Your task to perform on an android device: Open the Play Movies app and select the watchlist tab. Image 0: 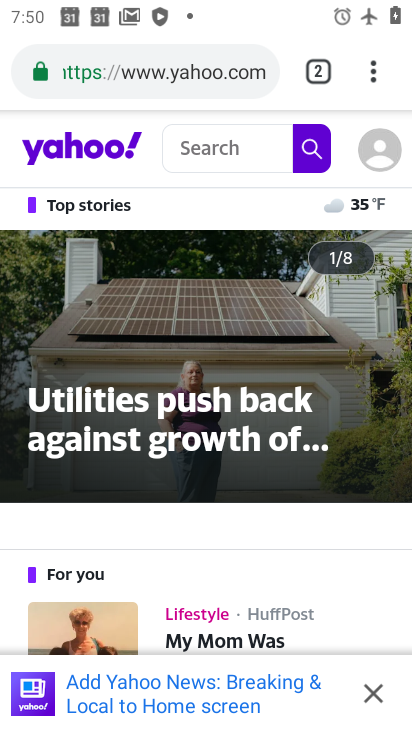
Step 0: press home button
Your task to perform on an android device: Open the Play Movies app and select the watchlist tab. Image 1: 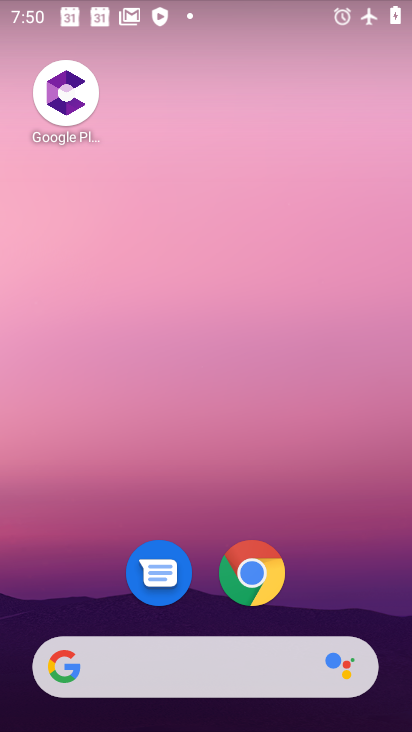
Step 1: drag from (320, 517) to (111, 19)
Your task to perform on an android device: Open the Play Movies app and select the watchlist tab. Image 2: 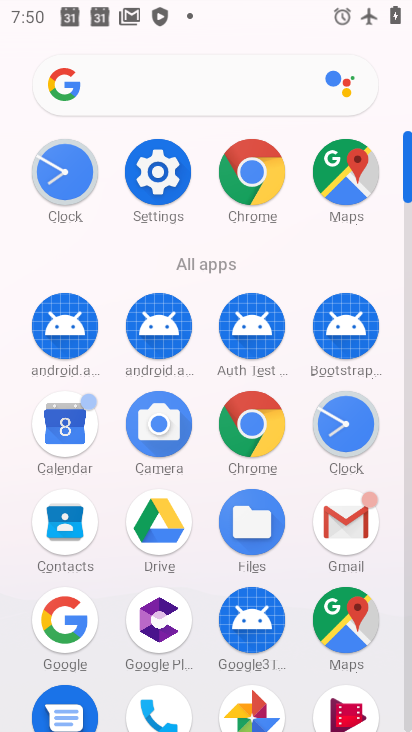
Step 2: drag from (304, 605) to (240, 212)
Your task to perform on an android device: Open the Play Movies app and select the watchlist tab. Image 3: 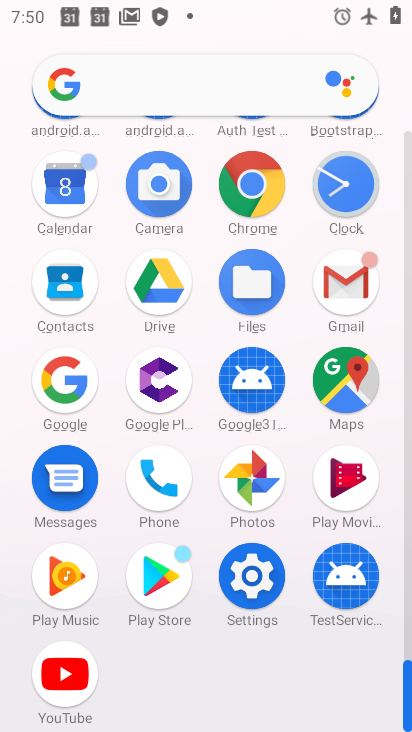
Step 3: drag from (313, 496) to (321, 145)
Your task to perform on an android device: Open the Play Movies app and select the watchlist tab. Image 4: 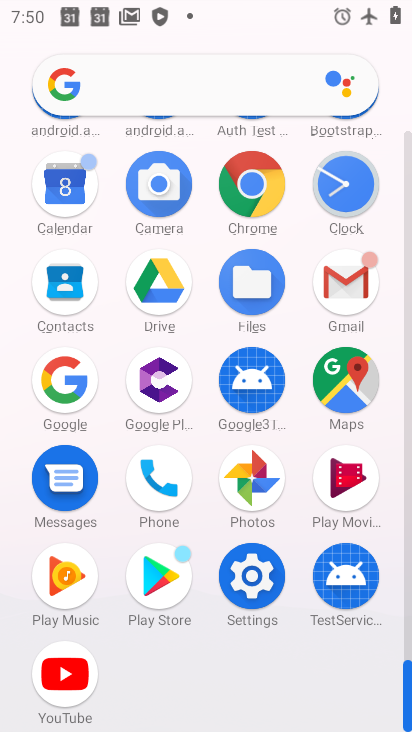
Step 4: click (59, 675)
Your task to perform on an android device: Open the Play Movies app and select the watchlist tab. Image 5: 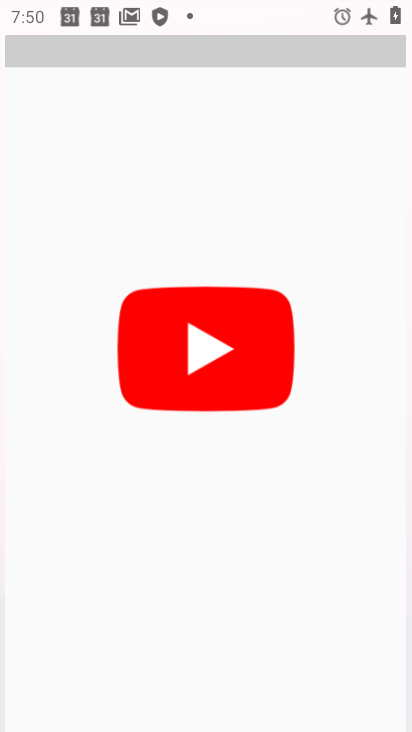
Step 5: click (59, 675)
Your task to perform on an android device: Open the Play Movies app and select the watchlist tab. Image 6: 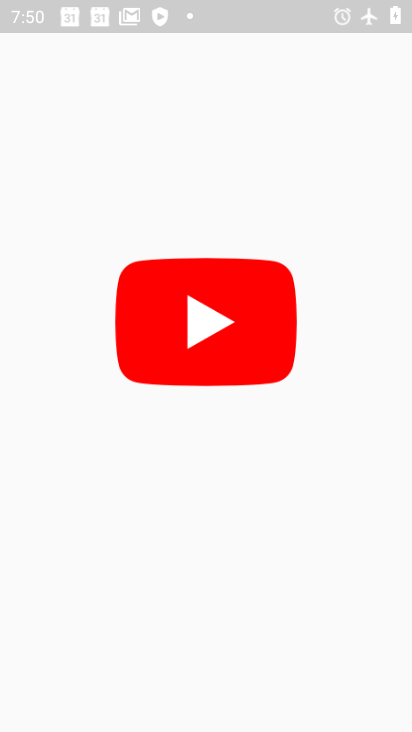
Step 6: click (59, 675)
Your task to perform on an android device: Open the Play Movies app and select the watchlist tab. Image 7: 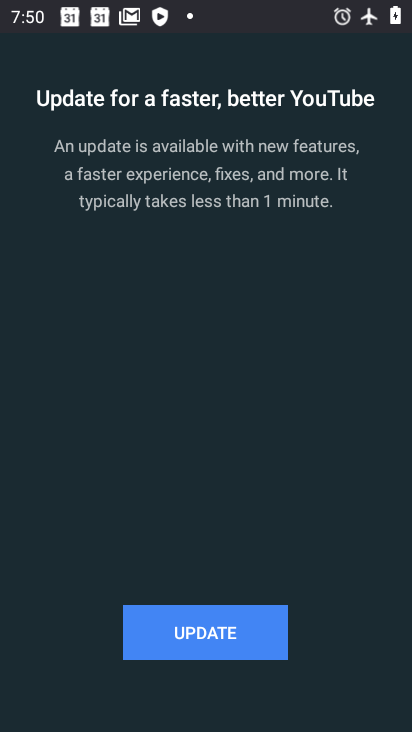
Step 7: click (224, 629)
Your task to perform on an android device: Open the Play Movies app and select the watchlist tab. Image 8: 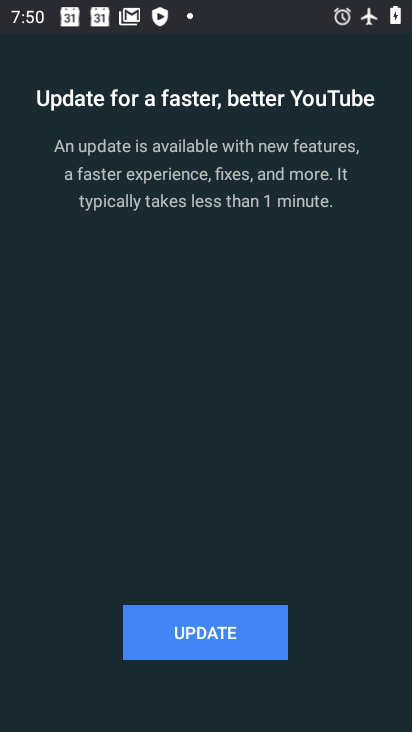
Step 8: click (223, 630)
Your task to perform on an android device: Open the Play Movies app and select the watchlist tab. Image 9: 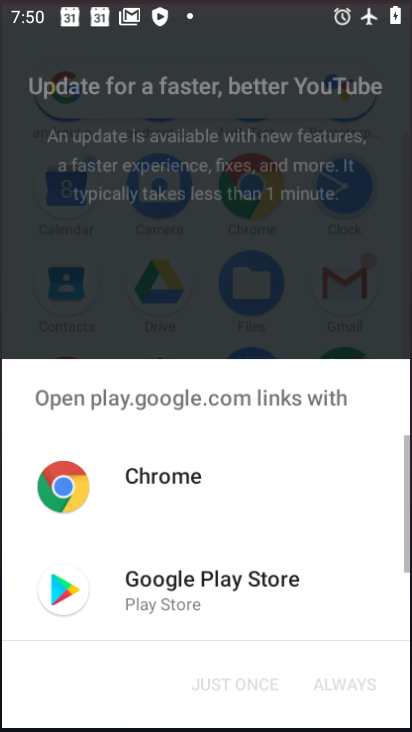
Step 9: click (223, 630)
Your task to perform on an android device: Open the Play Movies app and select the watchlist tab. Image 10: 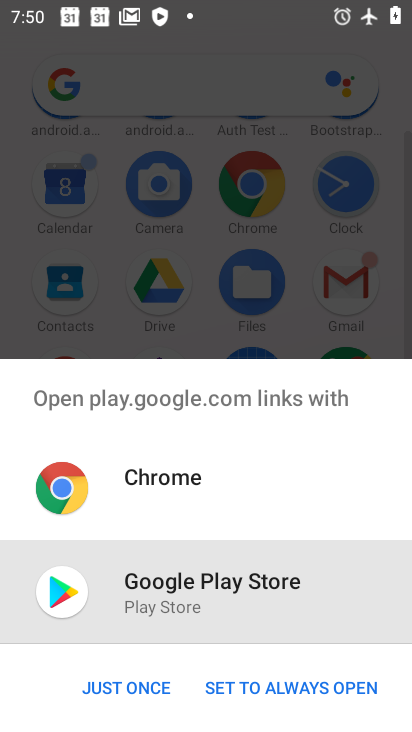
Step 10: click (171, 483)
Your task to perform on an android device: Open the Play Movies app and select the watchlist tab. Image 11: 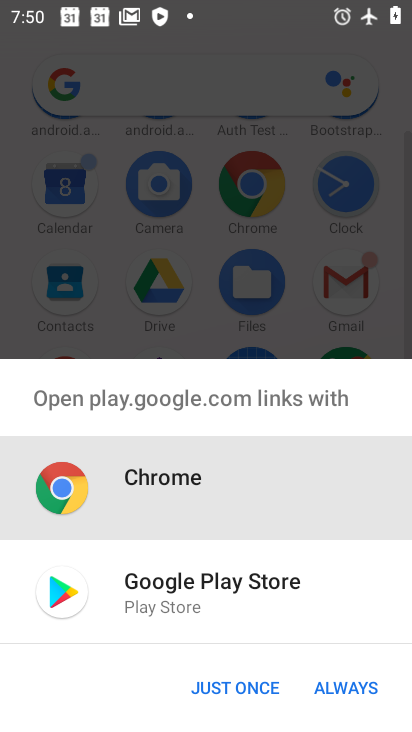
Step 11: click (178, 476)
Your task to perform on an android device: Open the Play Movies app and select the watchlist tab. Image 12: 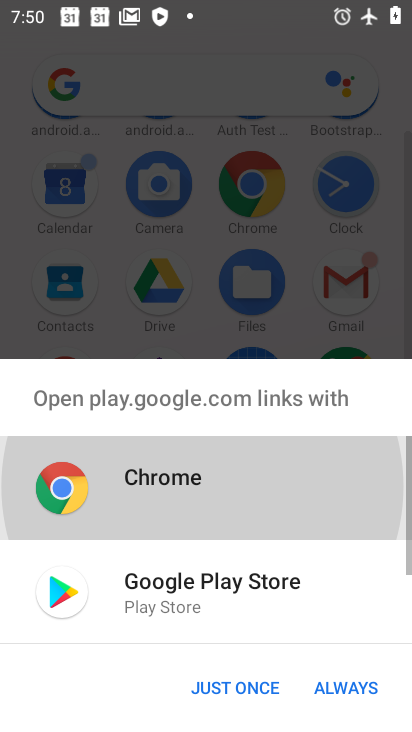
Step 12: click (179, 475)
Your task to perform on an android device: Open the Play Movies app and select the watchlist tab. Image 13: 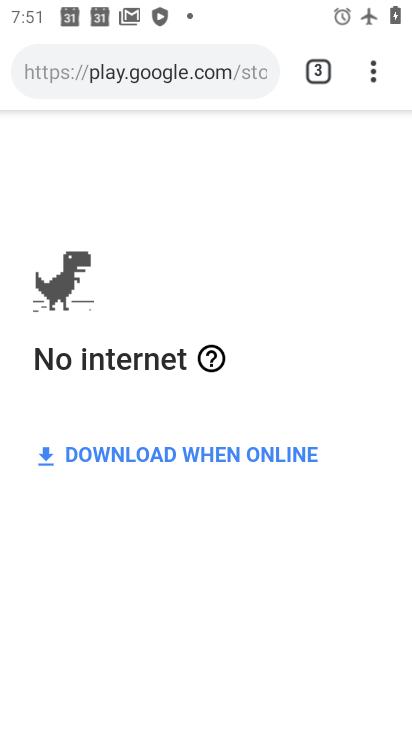
Step 13: task complete